Your task to perform on an android device: Turn off the flashlight Image 0: 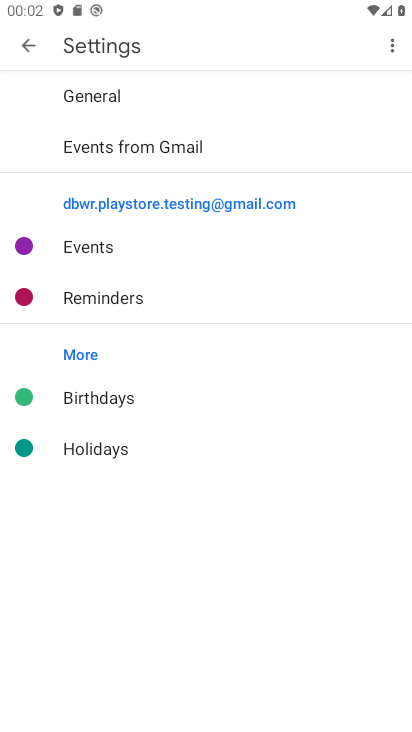
Step 0: drag from (262, 2) to (254, 439)
Your task to perform on an android device: Turn off the flashlight Image 1: 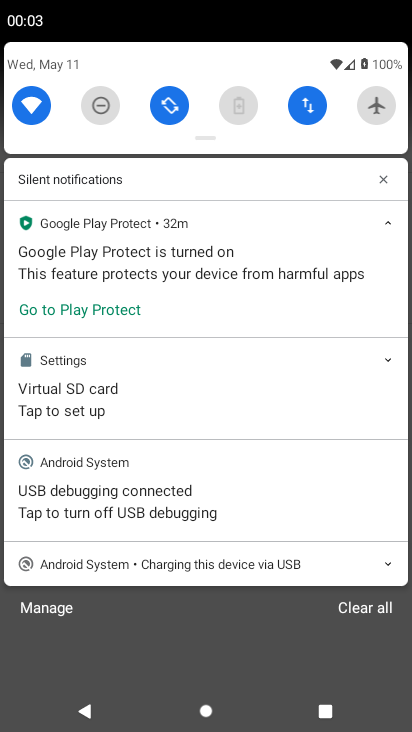
Step 1: task complete